Your task to perform on an android device: change notifications settings Image 0: 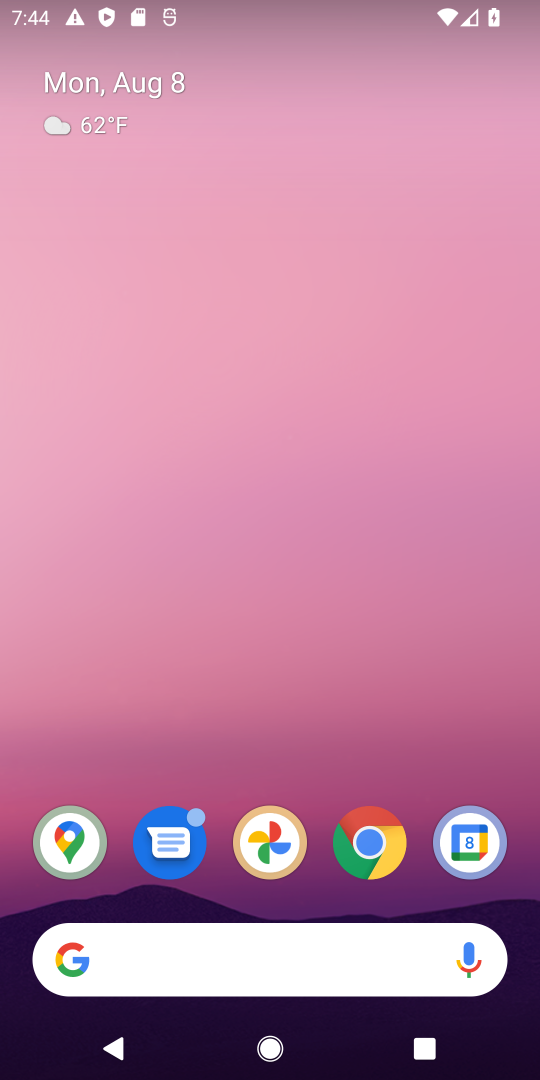
Step 0: drag from (524, 951) to (431, 193)
Your task to perform on an android device: change notifications settings Image 1: 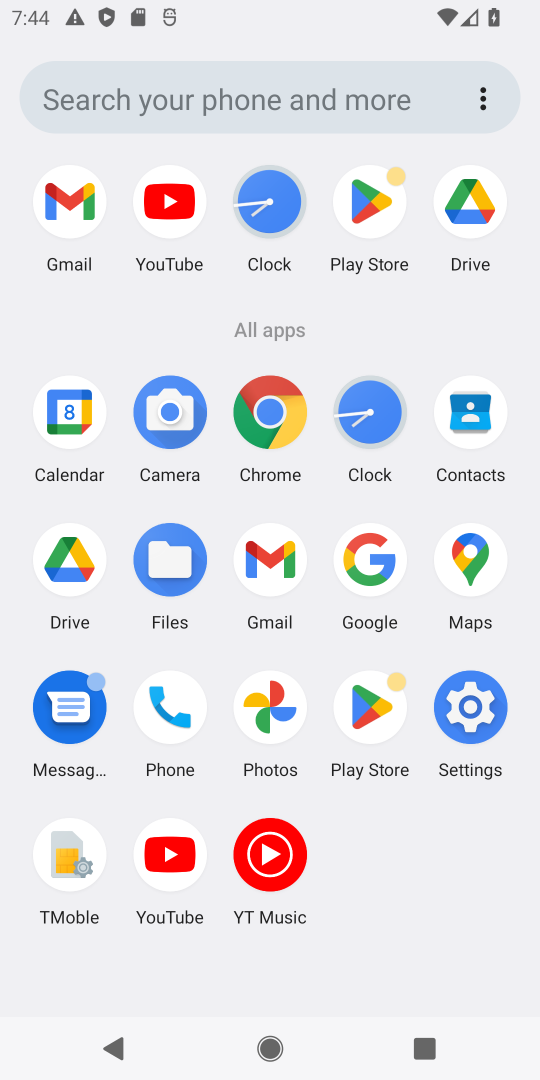
Step 1: click (480, 714)
Your task to perform on an android device: change notifications settings Image 2: 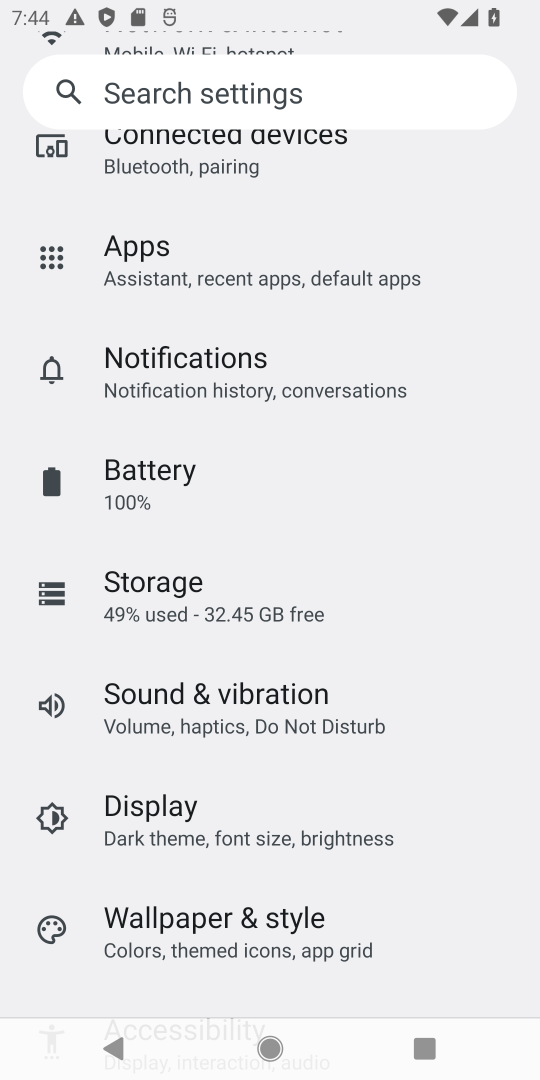
Step 2: click (220, 363)
Your task to perform on an android device: change notifications settings Image 3: 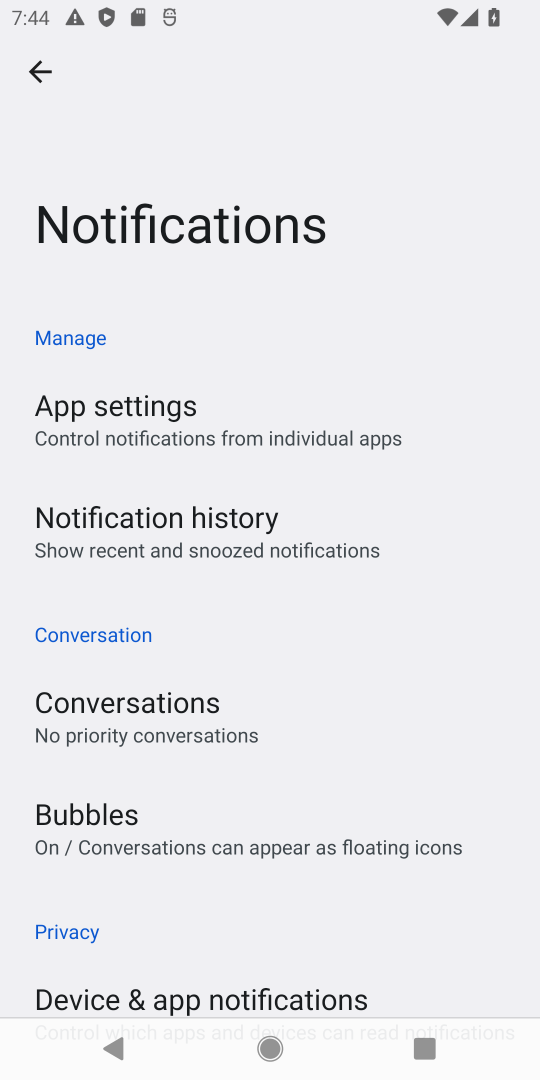
Step 3: task complete